Your task to perform on an android device: change notification settings in the gmail app Image 0: 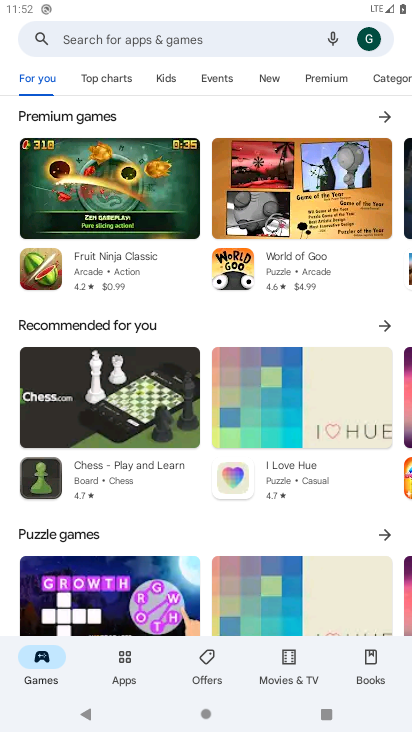
Step 0: press home button
Your task to perform on an android device: change notification settings in the gmail app Image 1: 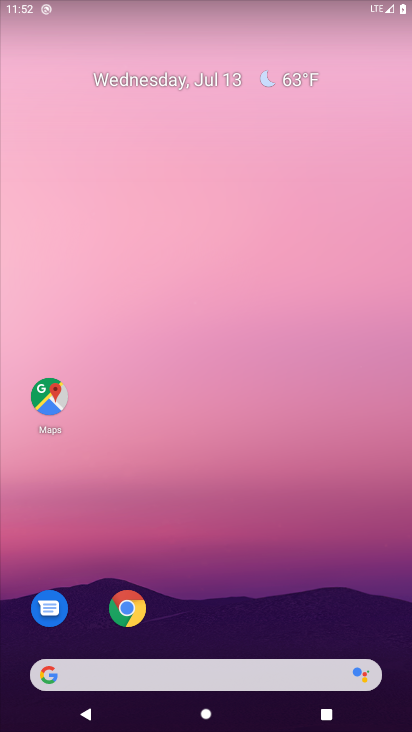
Step 1: drag from (300, 643) to (323, 121)
Your task to perform on an android device: change notification settings in the gmail app Image 2: 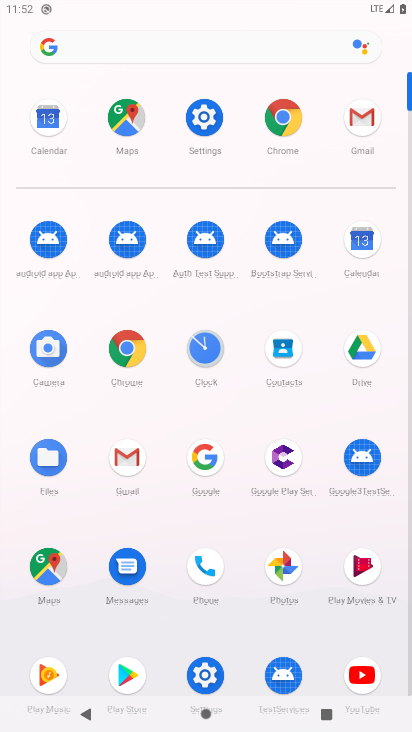
Step 2: click (217, 674)
Your task to perform on an android device: change notification settings in the gmail app Image 3: 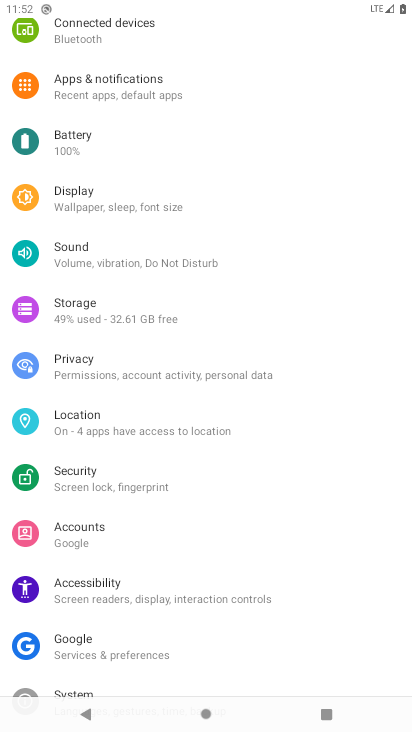
Step 3: click (128, 106)
Your task to perform on an android device: change notification settings in the gmail app Image 4: 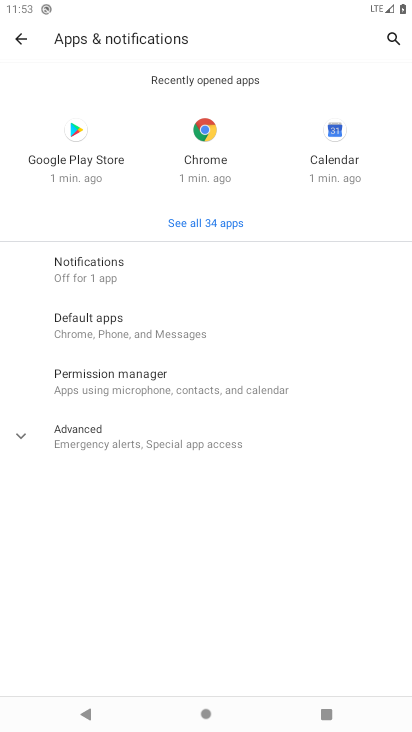
Step 4: click (128, 266)
Your task to perform on an android device: change notification settings in the gmail app Image 5: 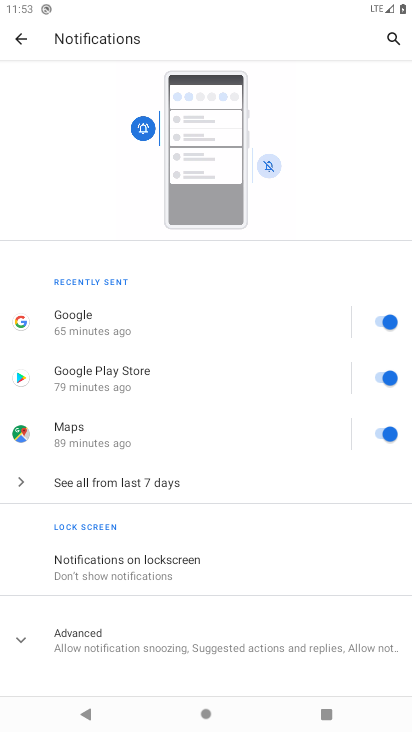
Step 5: click (215, 646)
Your task to perform on an android device: change notification settings in the gmail app Image 6: 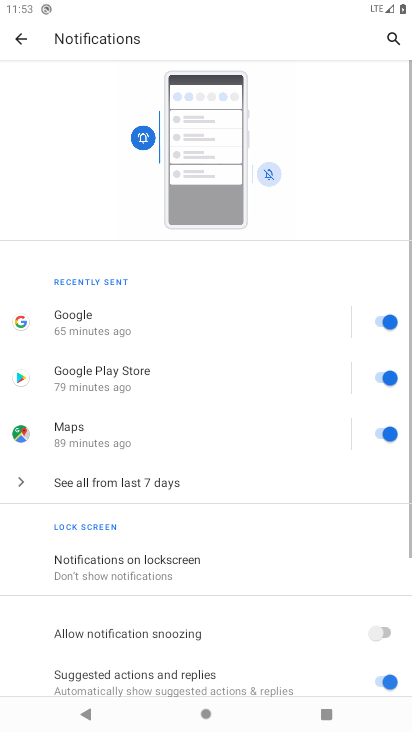
Step 6: drag from (215, 646) to (267, 346)
Your task to perform on an android device: change notification settings in the gmail app Image 7: 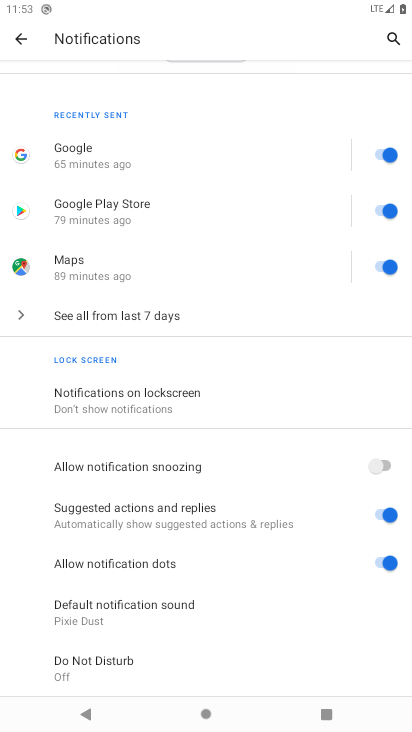
Step 7: click (226, 469)
Your task to perform on an android device: change notification settings in the gmail app Image 8: 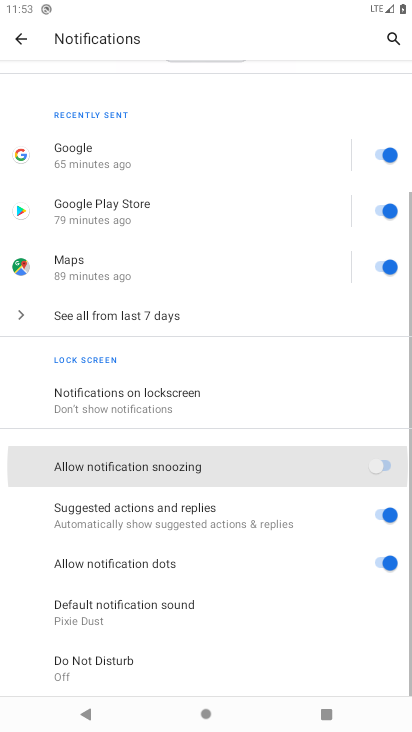
Step 8: click (209, 526)
Your task to perform on an android device: change notification settings in the gmail app Image 9: 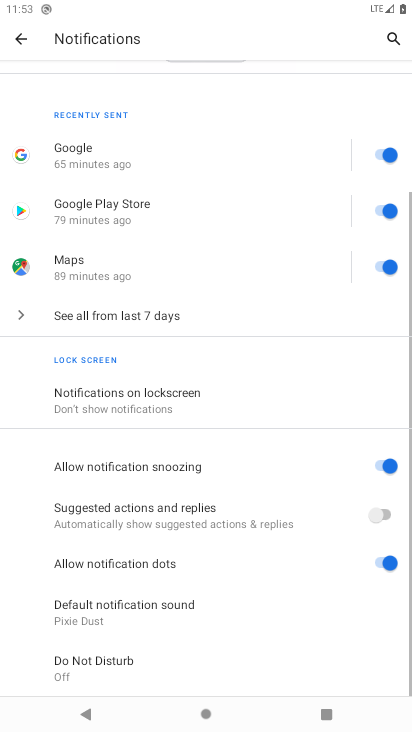
Step 9: click (182, 577)
Your task to perform on an android device: change notification settings in the gmail app Image 10: 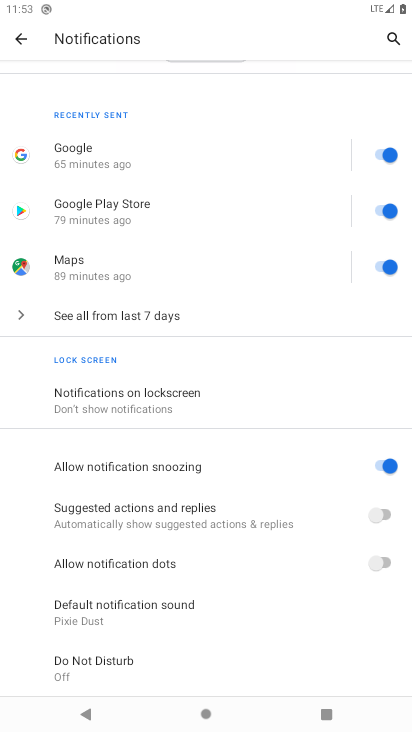
Step 10: task complete